Your task to perform on an android device: Is it going to rain today? Image 0: 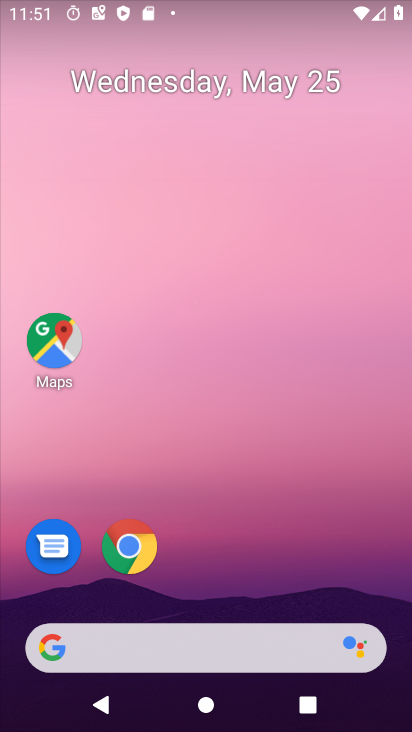
Step 0: click (195, 646)
Your task to perform on an android device: Is it going to rain today? Image 1: 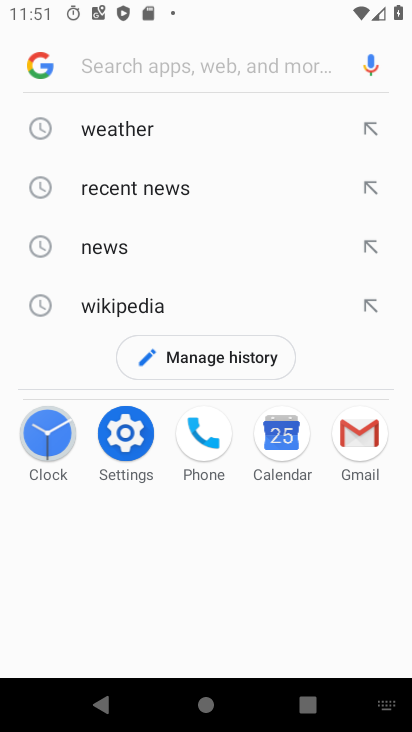
Step 1: type "is it going to rain today"
Your task to perform on an android device: Is it going to rain today? Image 2: 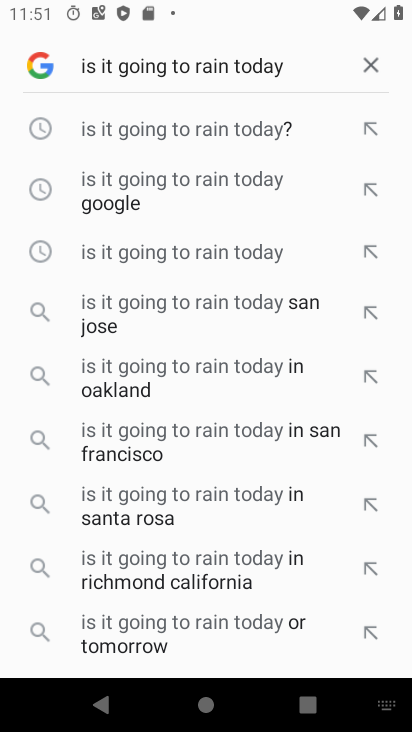
Step 2: click (141, 126)
Your task to perform on an android device: Is it going to rain today? Image 3: 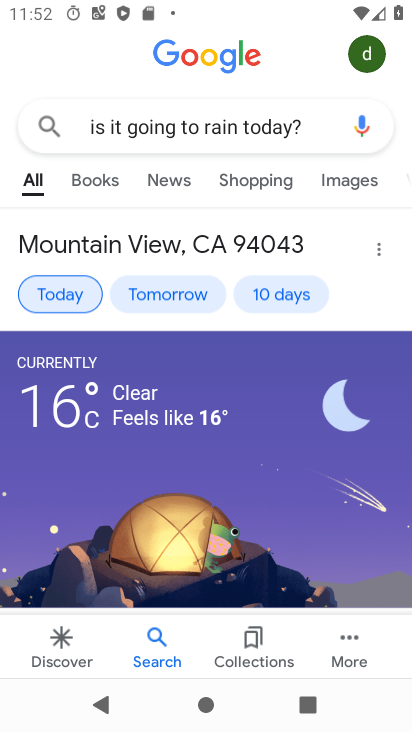
Step 3: task complete